Your task to perform on an android device: Do I have any events tomorrow? Image 0: 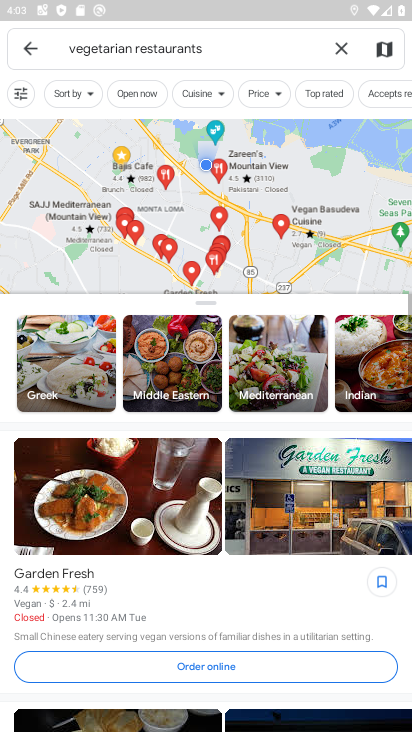
Step 0: press back button
Your task to perform on an android device: Do I have any events tomorrow? Image 1: 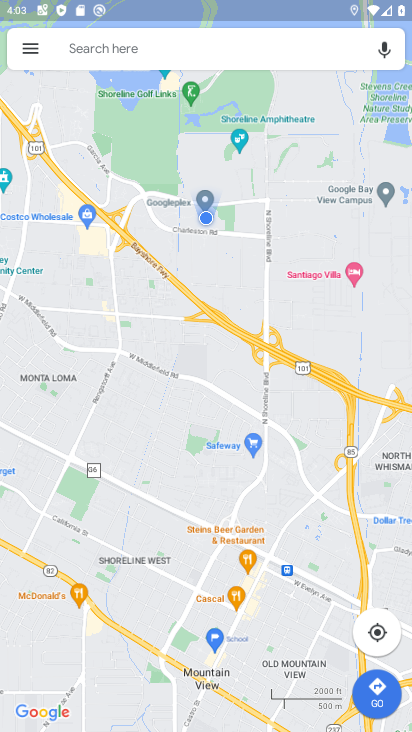
Step 1: press back button
Your task to perform on an android device: Do I have any events tomorrow? Image 2: 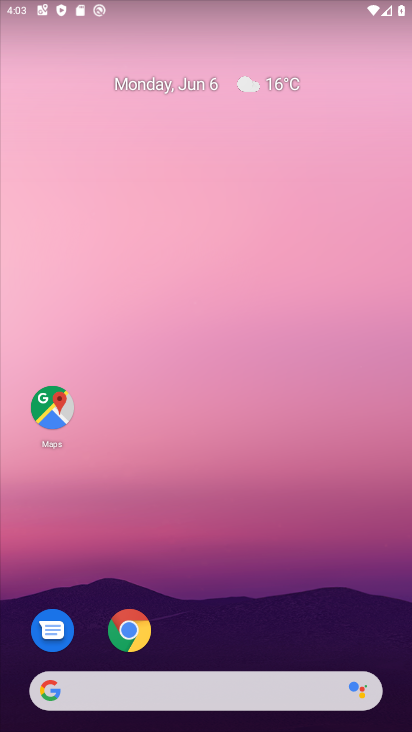
Step 2: drag from (197, 607) to (295, 202)
Your task to perform on an android device: Do I have any events tomorrow? Image 3: 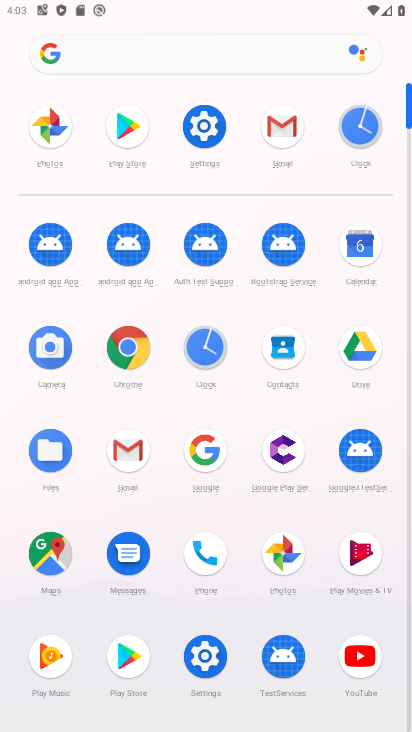
Step 3: click (367, 247)
Your task to perform on an android device: Do I have any events tomorrow? Image 4: 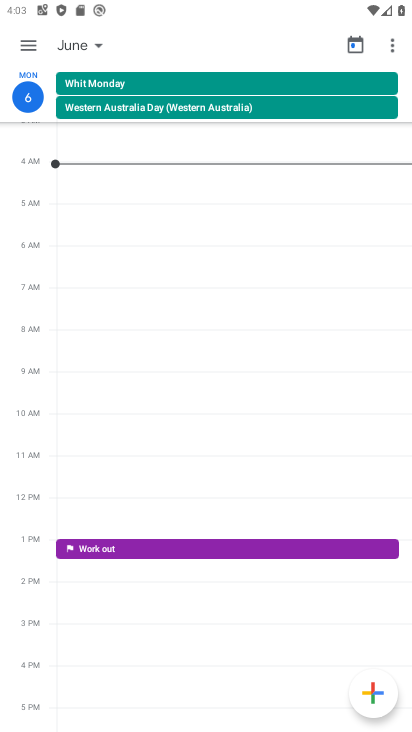
Step 4: click (20, 44)
Your task to perform on an android device: Do I have any events tomorrow? Image 5: 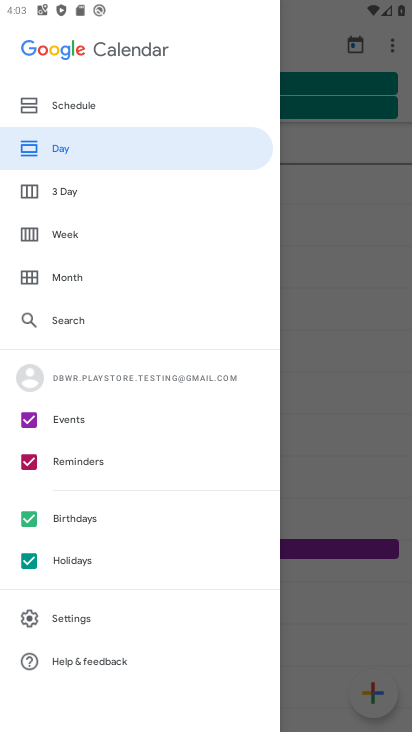
Step 5: click (94, 117)
Your task to perform on an android device: Do I have any events tomorrow? Image 6: 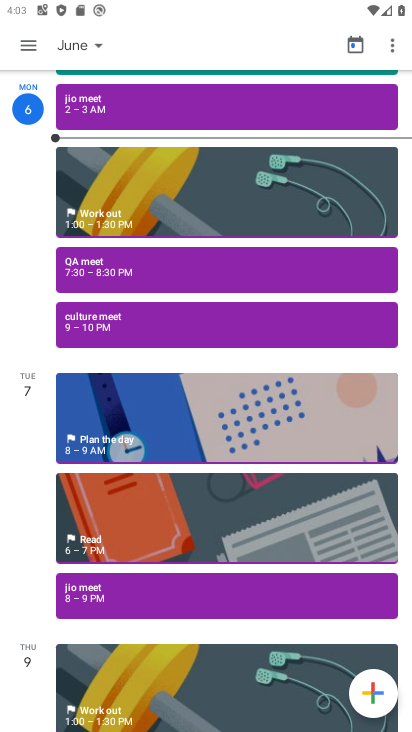
Step 6: click (98, 596)
Your task to perform on an android device: Do I have any events tomorrow? Image 7: 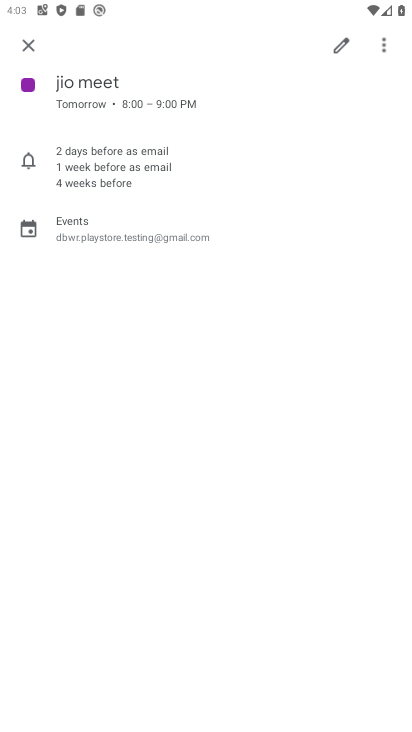
Step 7: task complete